Your task to perform on an android device: Open notification settings Image 0: 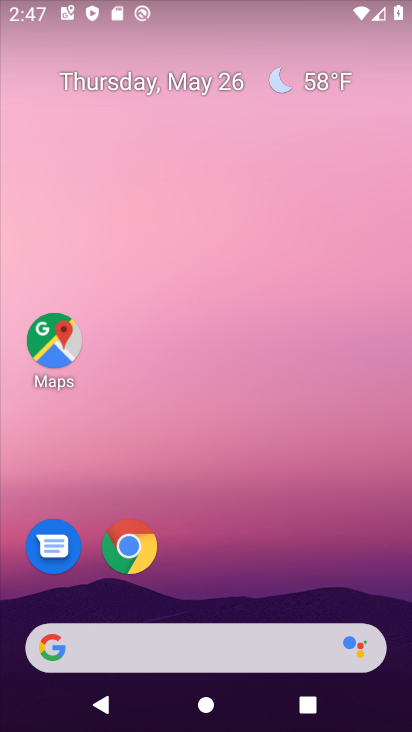
Step 0: press home button
Your task to perform on an android device: Open notification settings Image 1: 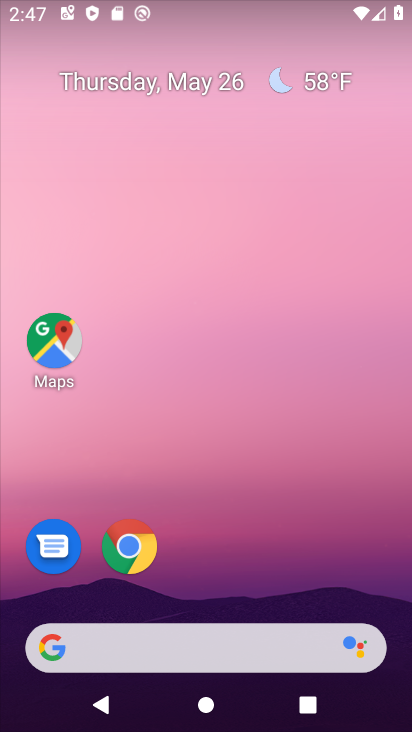
Step 1: drag from (224, 597) to (255, 27)
Your task to perform on an android device: Open notification settings Image 2: 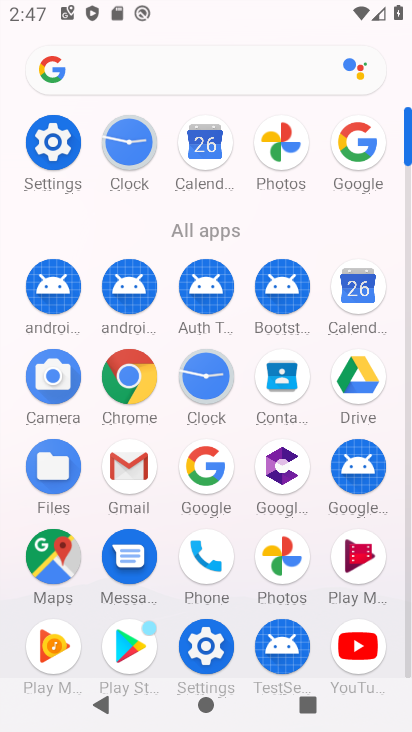
Step 2: click (65, 141)
Your task to perform on an android device: Open notification settings Image 3: 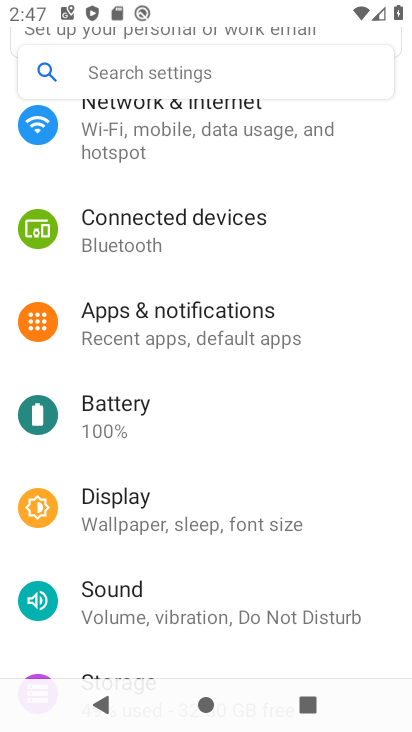
Step 3: click (192, 319)
Your task to perform on an android device: Open notification settings Image 4: 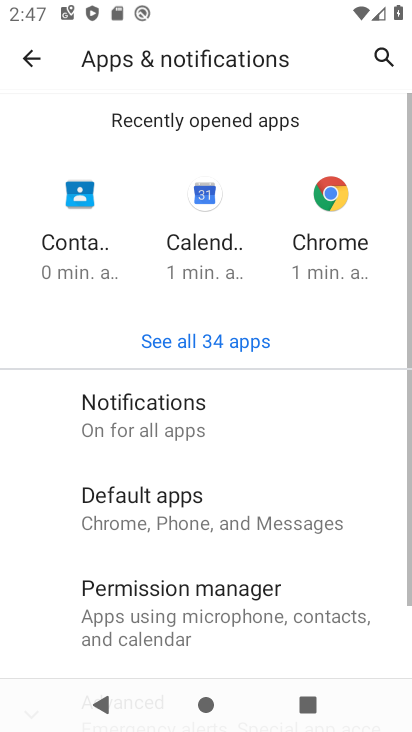
Step 4: click (229, 420)
Your task to perform on an android device: Open notification settings Image 5: 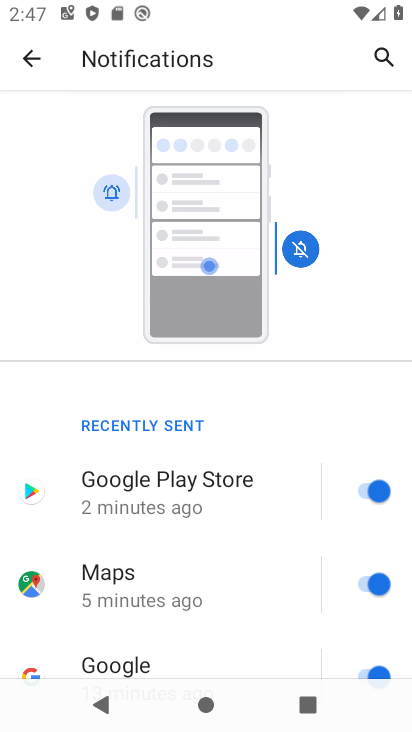
Step 5: drag from (230, 537) to (243, 55)
Your task to perform on an android device: Open notification settings Image 6: 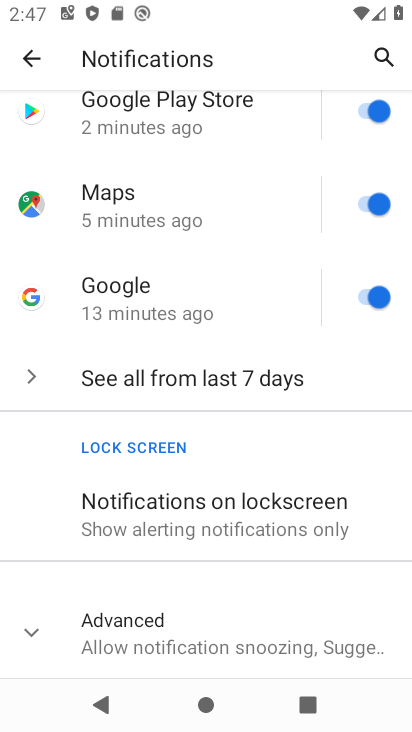
Step 6: drag from (190, 581) to (216, 295)
Your task to perform on an android device: Open notification settings Image 7: 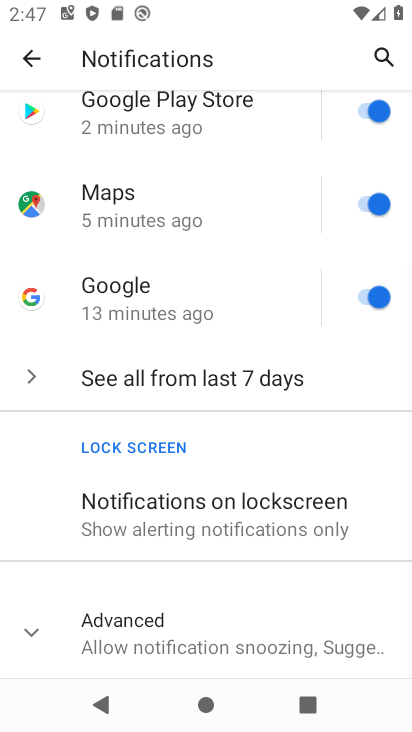
Step 7: click (43, 629)
Your task to perform on an android device: Open notification settings Image 8: 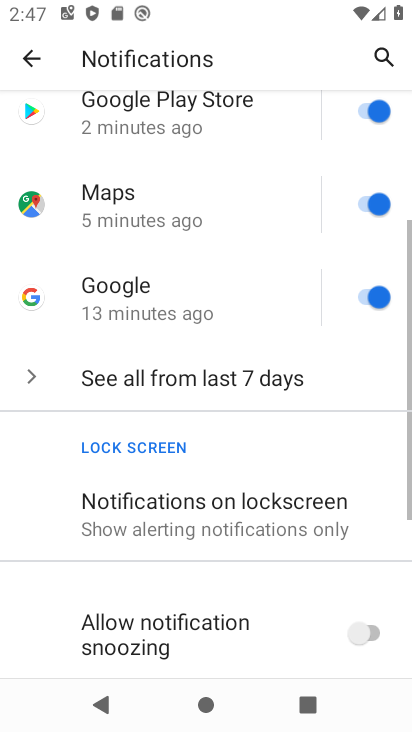
Step 8: task complete